Your task to perform on an android device: Open Google Image 0: 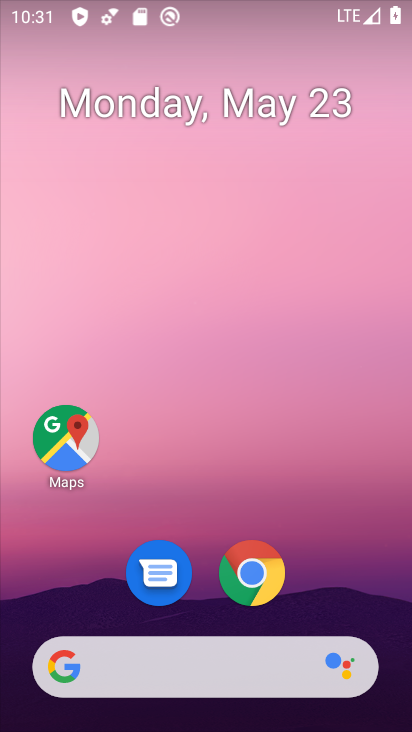
Step 0: drag from (74, 625) to (161, 161)
Your task to perform on an android device: Open Google Image 1: 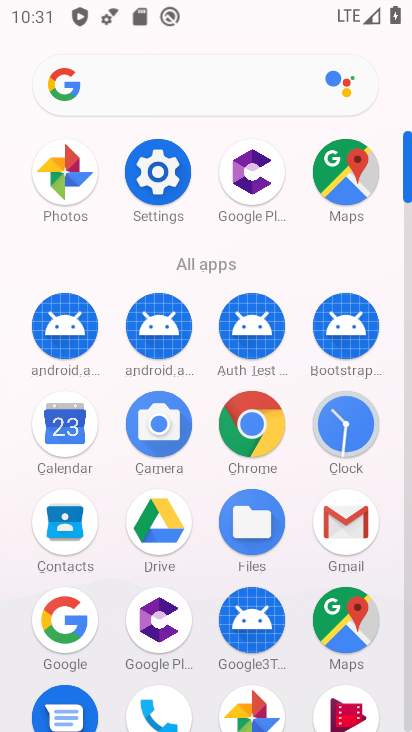
Step 1: click (52, 629)
Your task to perform on an android device: Open Google Image 2: 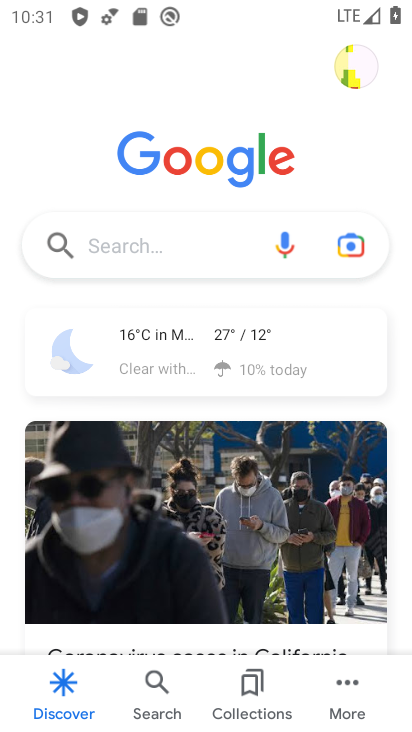
Step 2: task complete